Your task to perform on an android device: toggle javascript in the chrome app Image 0: 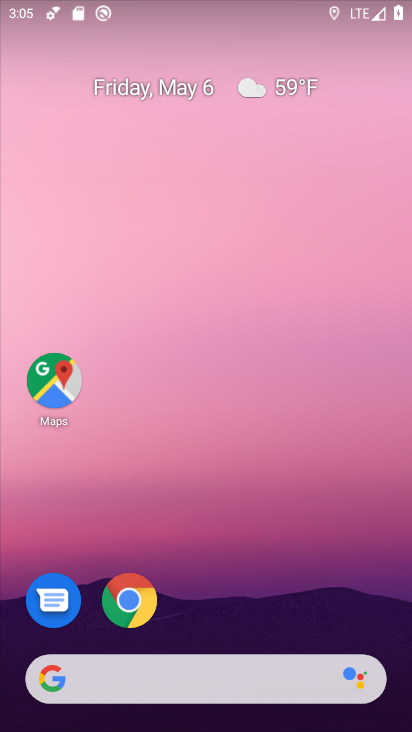
Step 0: click (131, 597)
Your task to perform on an android device: toggle javascript in the chrome app Image 1: 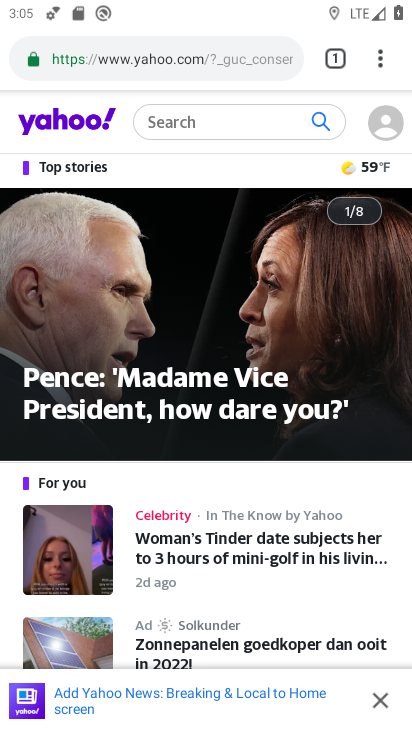
Step 1: click (377, 63)
Your task to perform on an android device: toggle javascript in the chrome app Image 2: 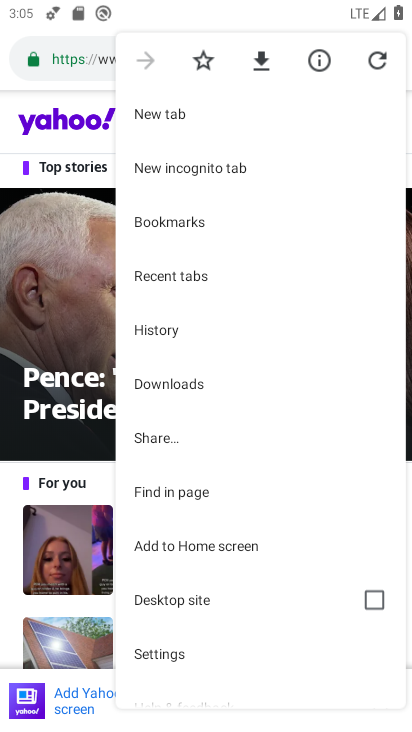
Step 2: drag from (201, 527) to (223, 241)
Your task to perform on an android device: toggle javascript in the chrome app Image 3: 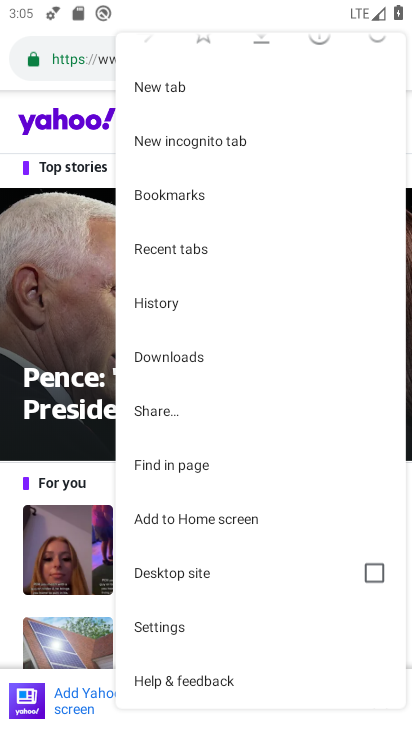
Step 3: click (195, 625)
Your task to perform on an android device: toggle javascript in the chrome app Image 4: 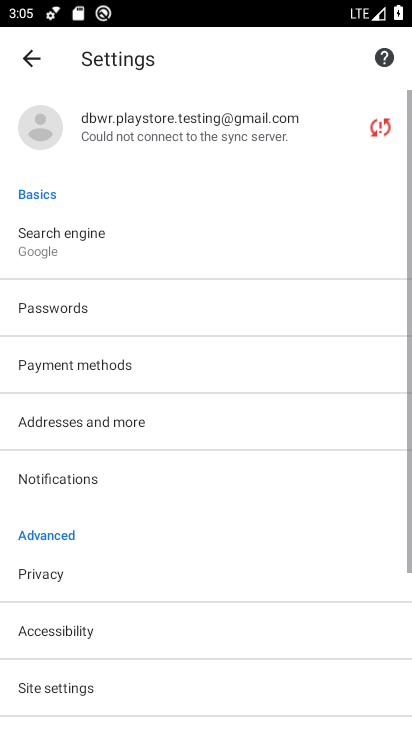
Step 4: drag from (147, 587) to (144, 331)
Your task to perform on an android device: toggle javascript in the chrome app Image 5: 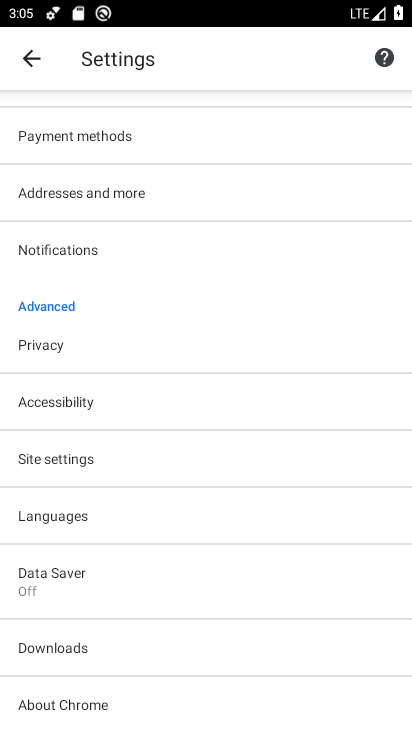
Step 5: click (90, 461)
Your task to perform on an android device: toggle javascript in the chrome app Image 6: 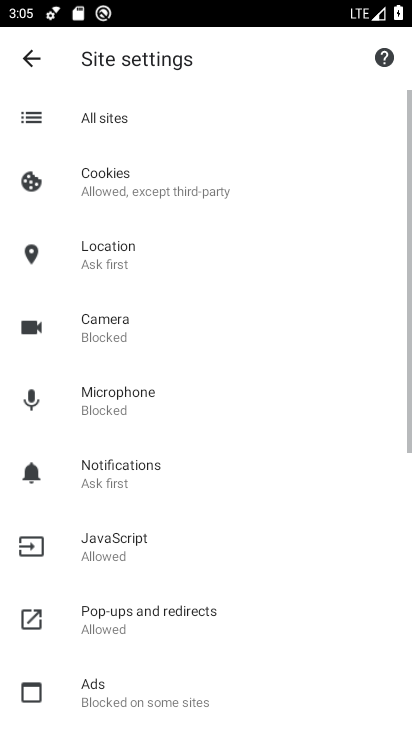
Step 6: click (155, 565)
Your task to perform on an android device: toggle javascript in the chrome app Image 7: 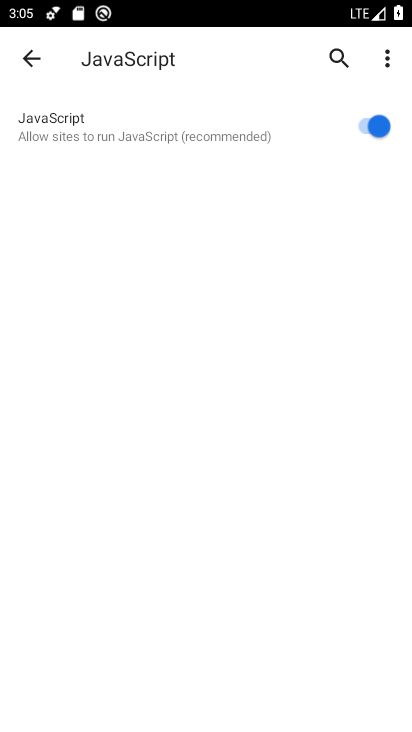
Step 7: click (366, 119)
Your task to perform on an android device: toggle javascript in the chrome app Image 8: 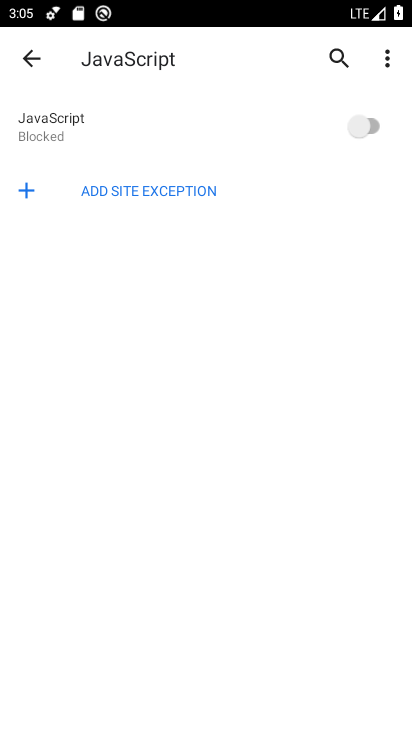
Step 8: task complete